Your task to perform on an android device: toggle wifi Image 0: 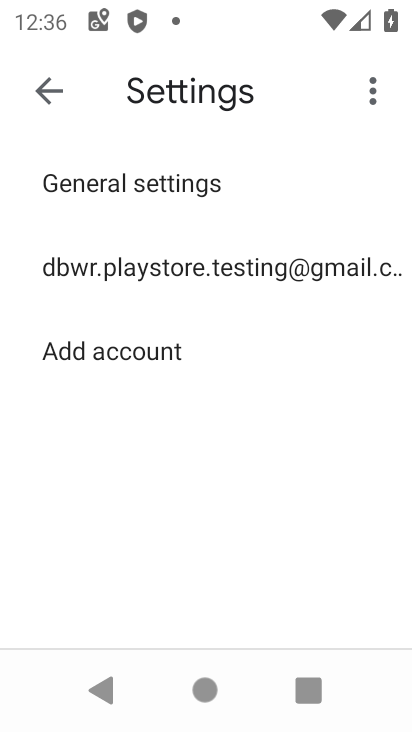
Step 0: click (43, 91)
Your task to perform on an android device: toggle wifi Image 1: 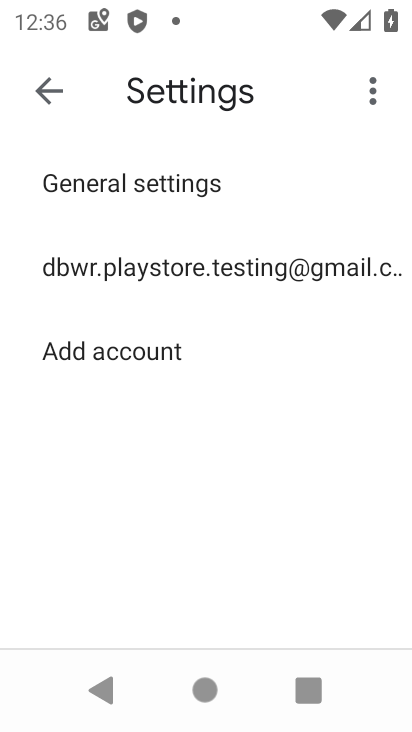
Step 1: press back button
Your task to perform on an android device: toggle wifi Image 2: 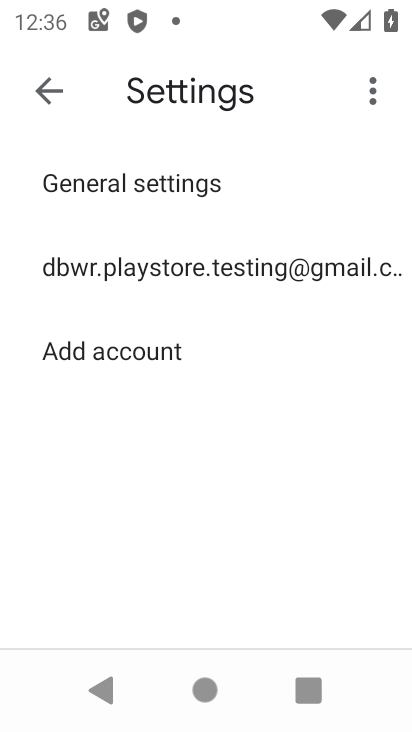
Step 2: press back button
Your task to perform on an android device: toggle wifi Image 3: 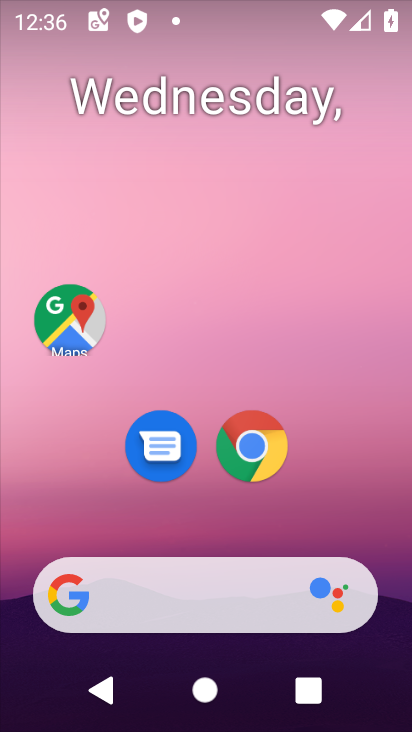
Step 3: drag from (266, 686) to (245, 116)
Your task to perform on an android device: toggle wifi Image 4: 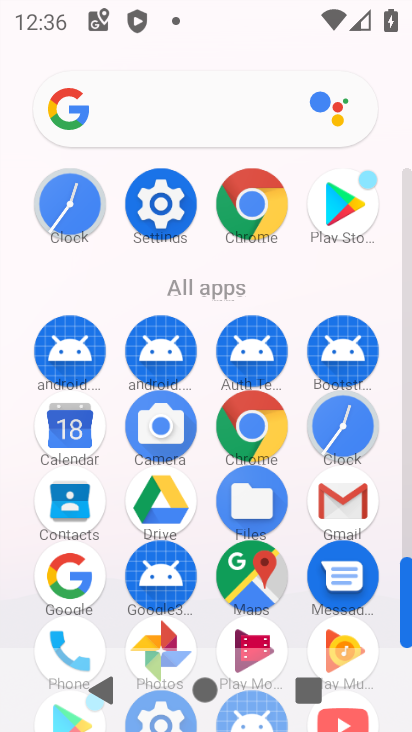
Step 4: click (151, 204)
Your task to perform on an android device: toggle wifi Image 5: 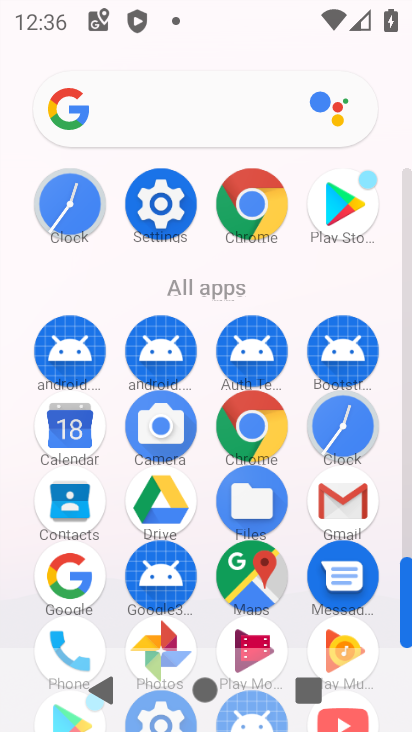
Step 5: click (153, 210)
Your task to perform on an android device: toggle wifi Image 6: 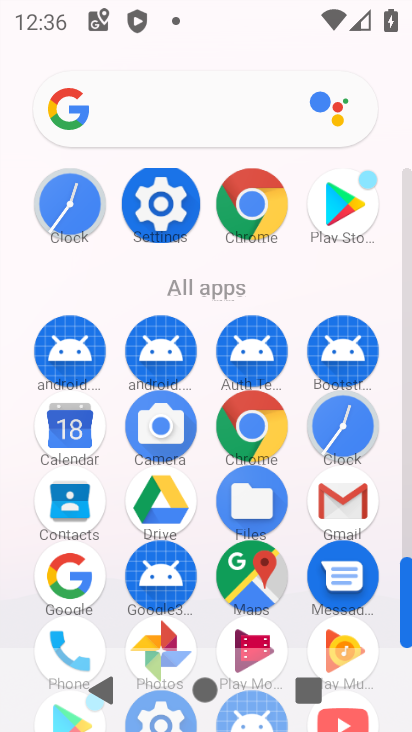
Step 6: click (153, 210)
Your task to perform on an android device: toggle wifi Image 7: 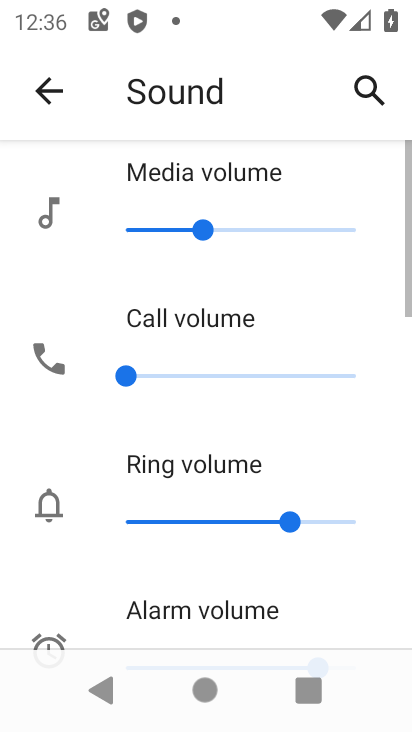
Step 7: click (41, 93)
Your task to perform on an android device: toggle wifi Image 8: 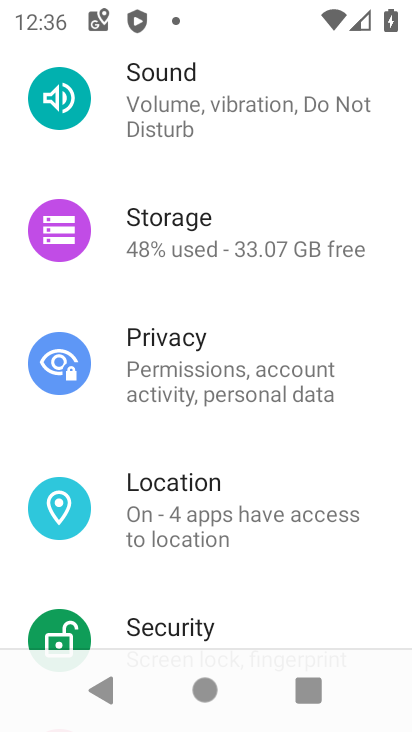
Step 8: drag from (188, 197) to (192, 522)
Your task to perform on an android device: toggle wifi Image 9: 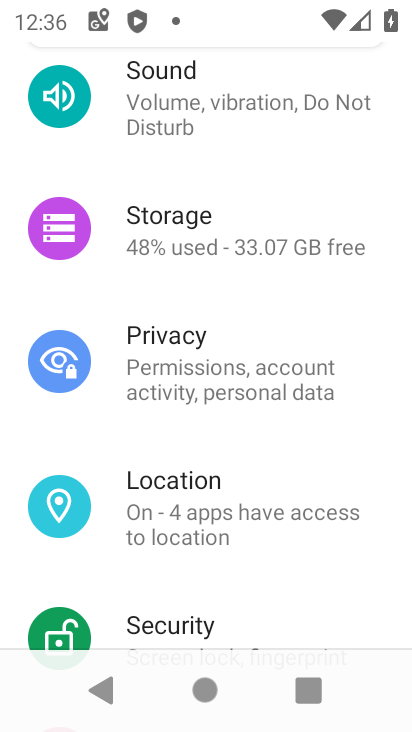
Step 9: drag from (166, 165) to (227, 514)
Your task to perform on an android device: toggle wifi Image 10: 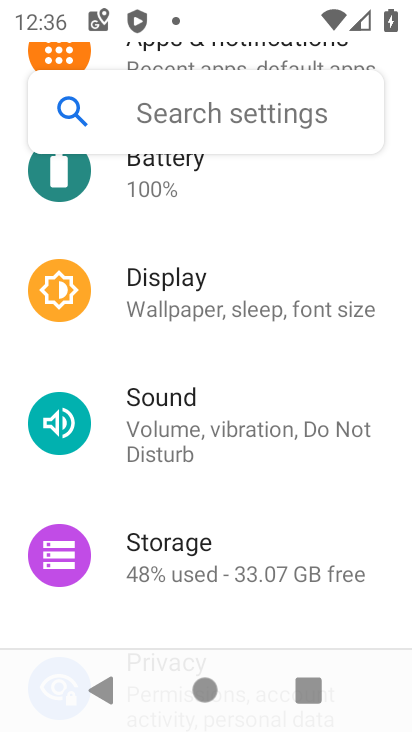
Step 10: drag from (236, 436) to (249, 485)
Your task to perform on an android device: toggle wifi Image 11: 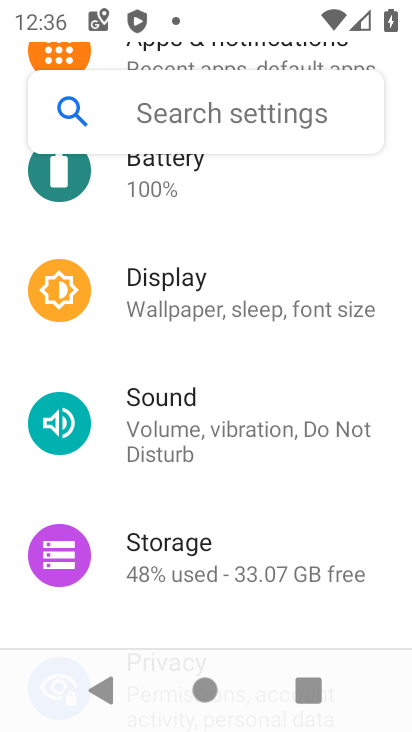
Step 11: drag from (192, 235) to (221, 548)
Your task to perform on an android device: toggle wifi Image 12: 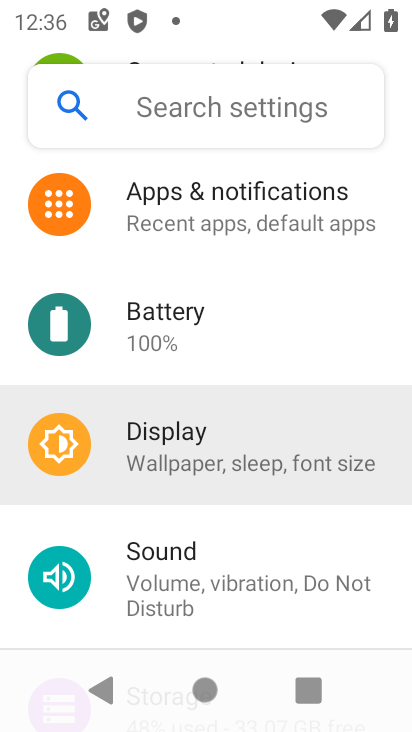
Step 12: drag from (237, 230) to (264, 467)
Your task to perform on an android device: toggle wifi Image 13: 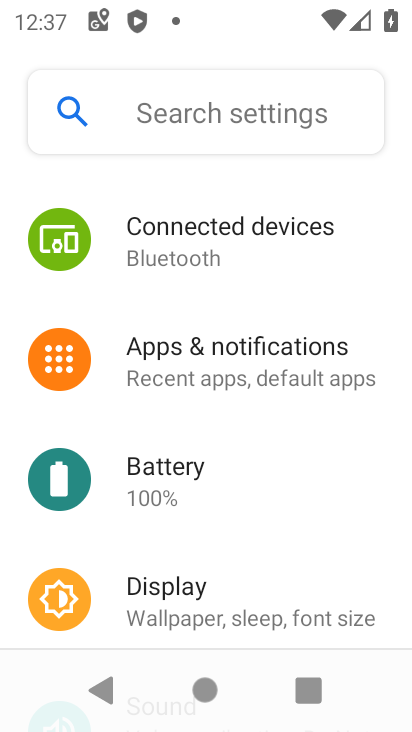
Step 13: drag from (219, 277) to (274, 487)
Your task to perform on an android device: toggle wifi Image 14: 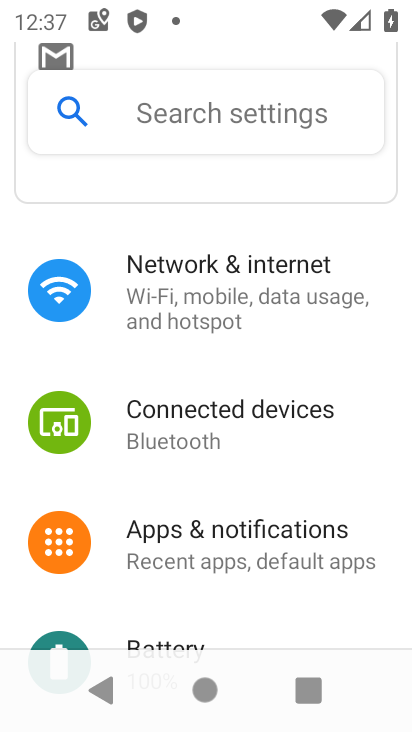
Step 14: click (248, 280)
Your task to perform on an android device: toggle wifi Image 15: 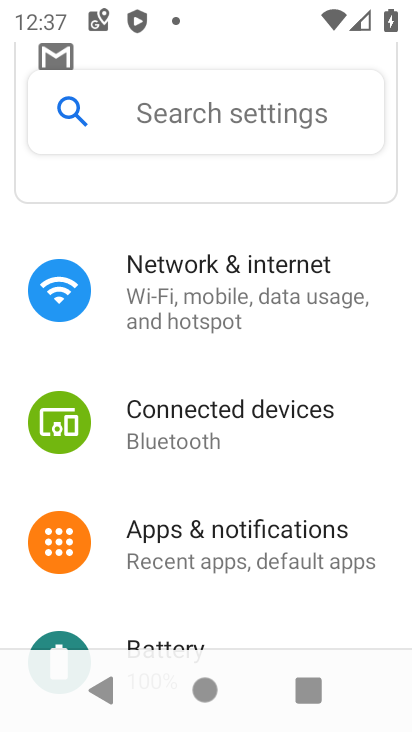
Step 15: click (250, 285)
Your task to perform on an android device: toggle wifi Image 16: 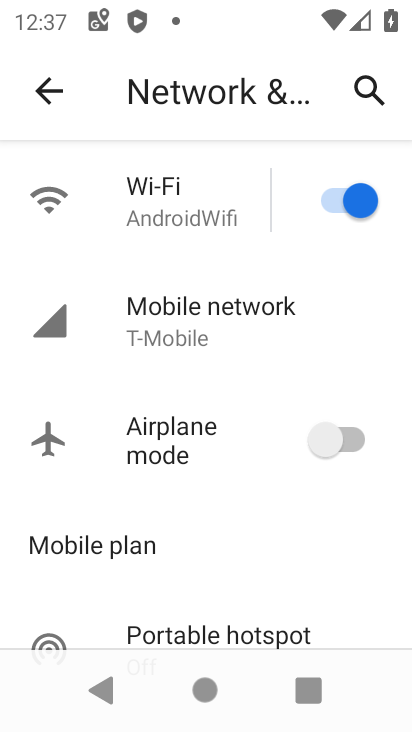
Step 16: click (367, 201)
Your task to perform on an android device: toggle wifi Image 17: 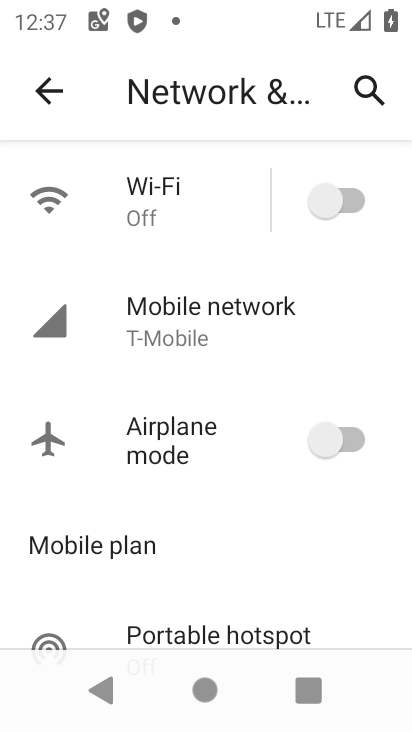
Step 17: task complete